Your task to perform on an android device: Open calendar and show me the first week of next month Image 0: 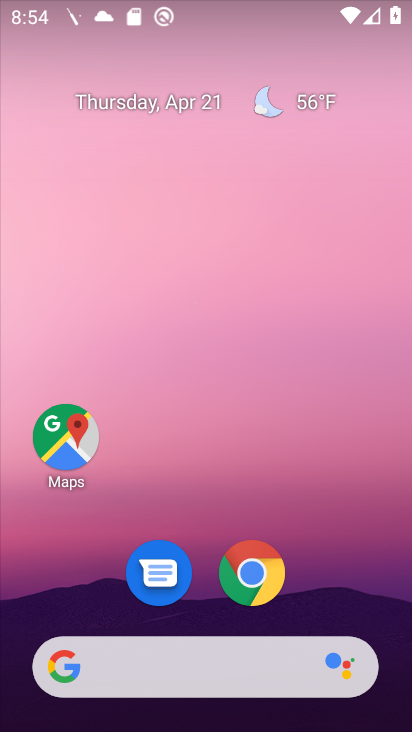
Step 0: drag from (211, 509) to (227, 0)
Your task to perform on an android device: Open calendar and show me the first week of next month Image 1: 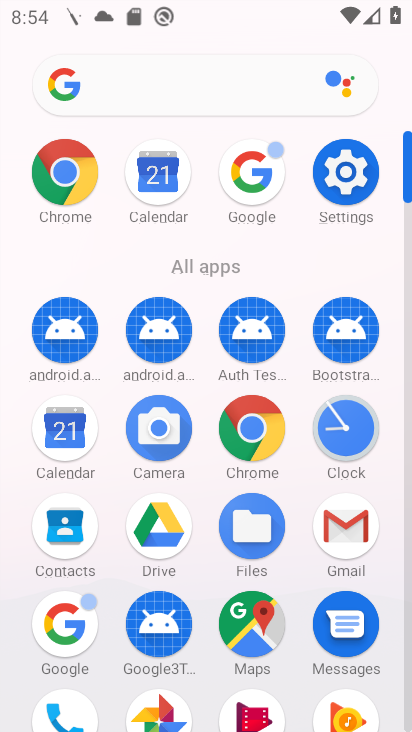
Step 1: click (159, 176)
Your task to perform on an android device: Open calendar and show me the first week of next month Image 2: 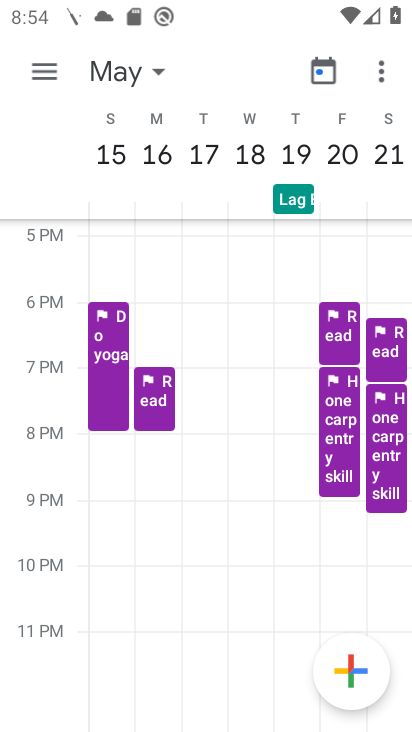
Step 2: click (325, 76)
Your task to perform on an android device: Open calendar and show me the first week of next month Image 3: 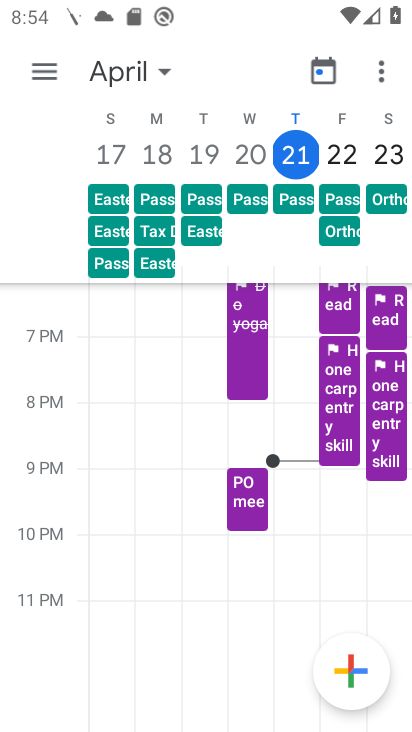
Step 3: click (160, 71)
Your task to perform on an android device: Open calendar and show me the first week of next month Image 4: 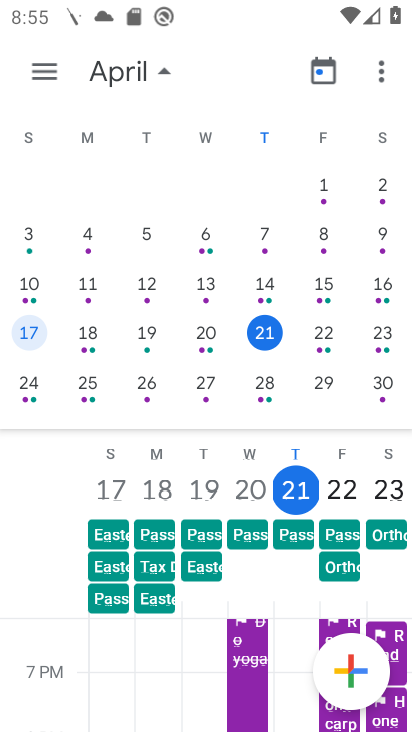
Step 4: click (93, 234)
Your task to perform on an android device: Open calendar and show me the first week of next month Image 5: 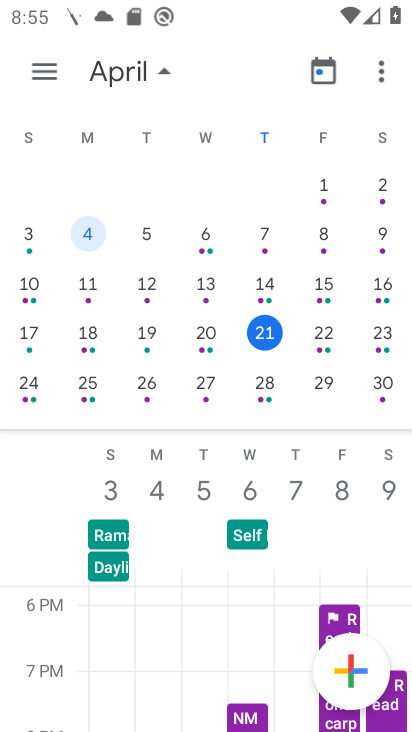
Step 5: click (41, 74)
Your task to perform on an android device: Open calendar and show me the first week of next month Image 6: 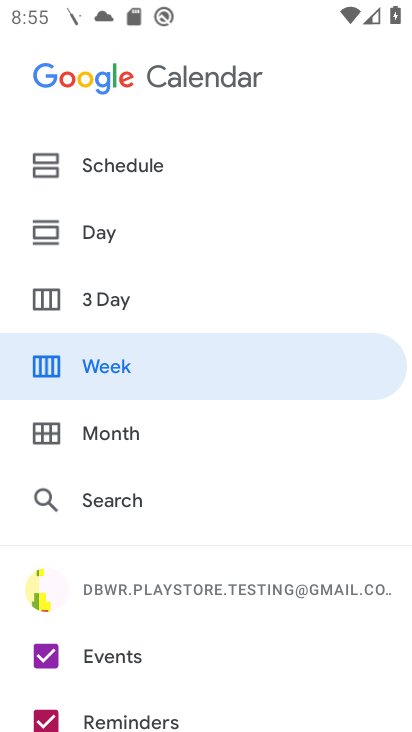
Step 6: click (133, 367)
Your task to perform on an android device: Open calendar and show me the first week of next month Image 7: 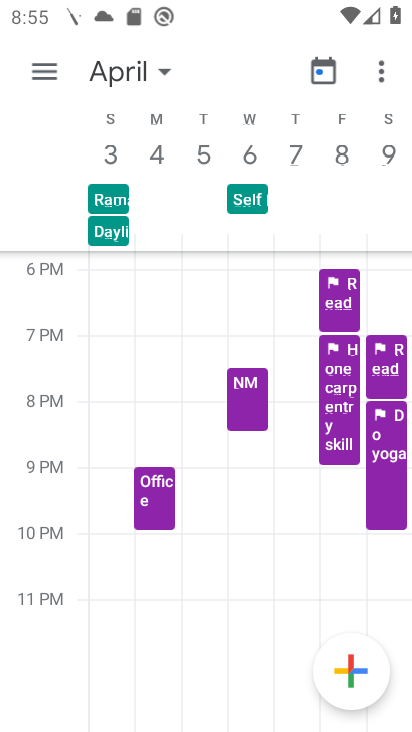
Step 7: task complete